Your task to perform on an android device: Go to wifi settings Image 0: 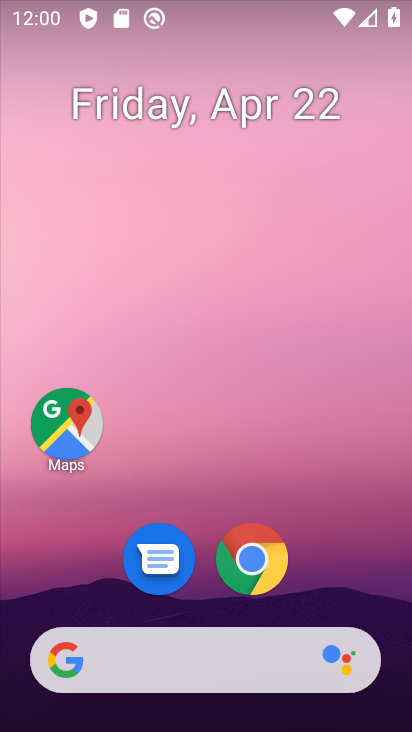
Step 0: drag from (380, 581) to (233, 196)
Your task to perform on an android device: Go to wifi settings Image 1: 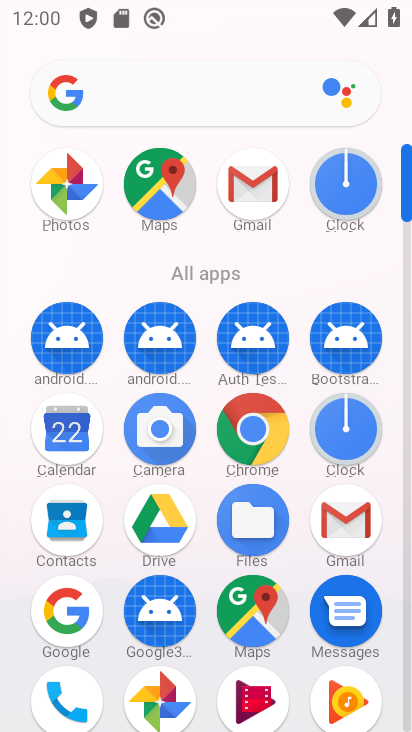
Step 1: drag from (263, 613) to (284, 321)
Your task to perform on an android device: Go to wifi settings Image 2: 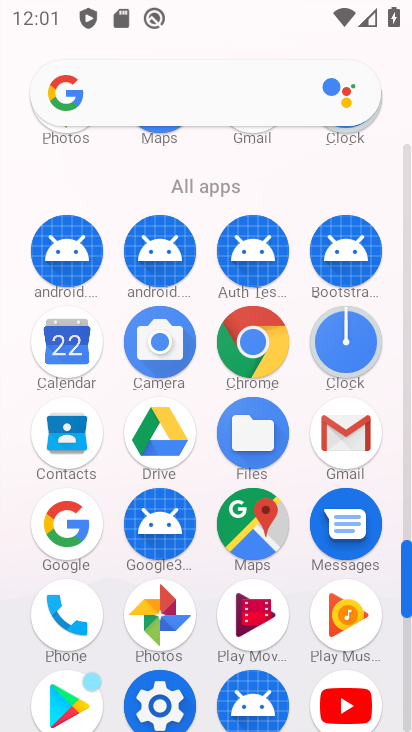
Step 2: click (146, 695)
Your task to perform on an android device: Go to wifi settings Image 3: 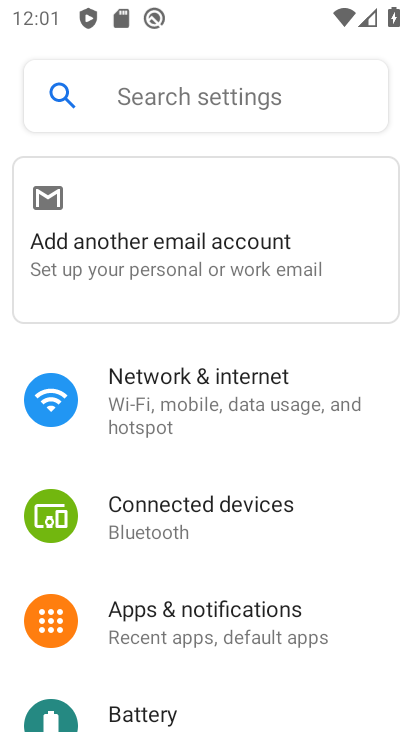
Step 3: click (178, 418)
Your task to perform on an android device: Go to wifi settings Image 4: 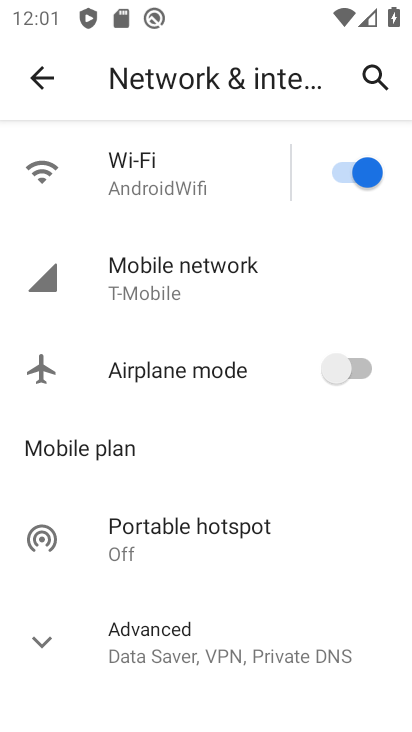
Step 4: click (190, 177)
Your task to perform on an android device: Go to wifi settings Image 5: 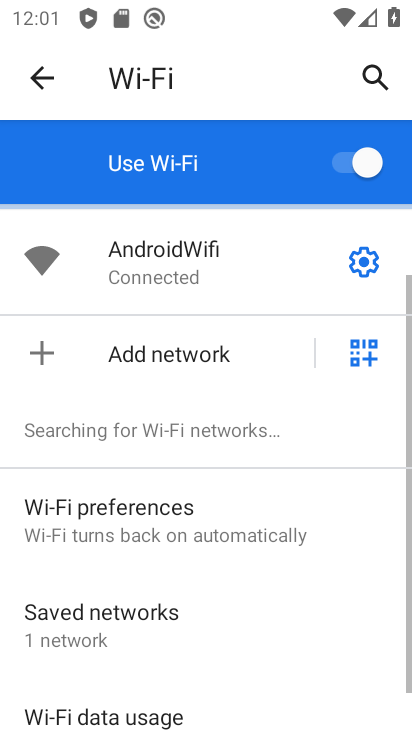
Step 5: task complete